Your task to perform on an android device: Open maps Image 0: 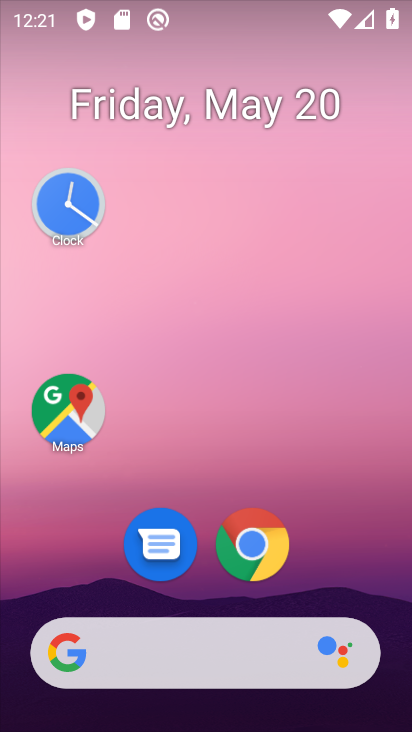
Step 0: click (73, 423)
Your task to perform on an android device: Open maps Image 1: 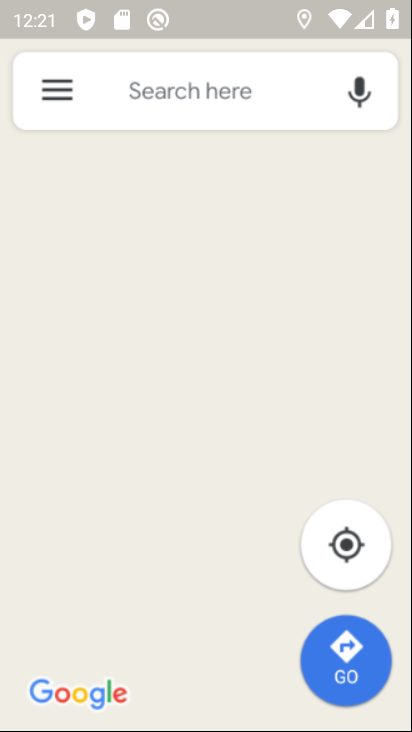
Step 1: task complete